Your task to perform on an android device: turn off location Image 0: 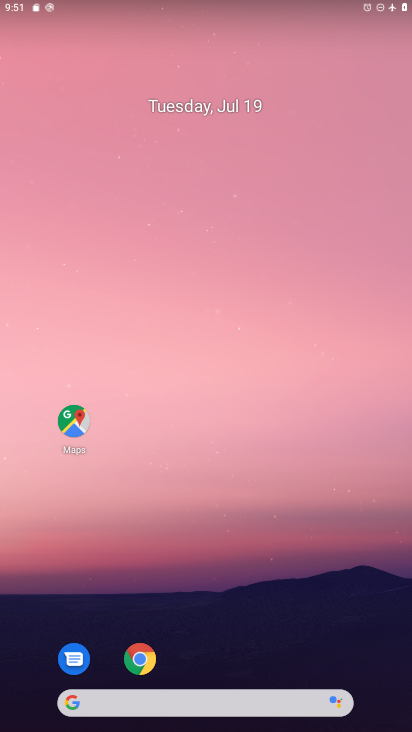
Step 0: drag from (164, 649) to (166, 306)
Your task to perform on an android device: turn off location Image 1: 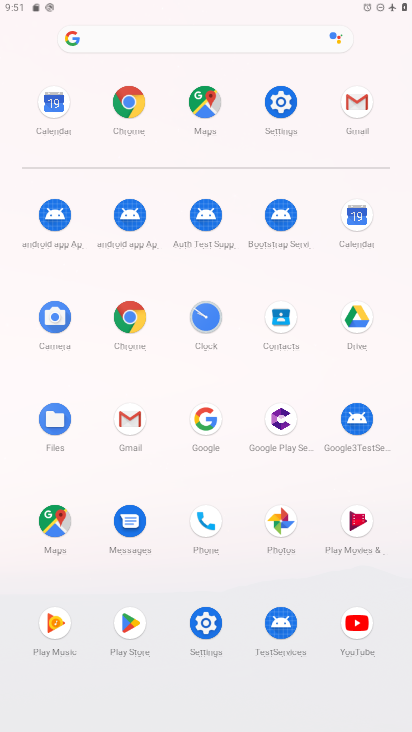
Step 1: click (270, 93)
Your task to perform on an android device: turn off location Image 2: 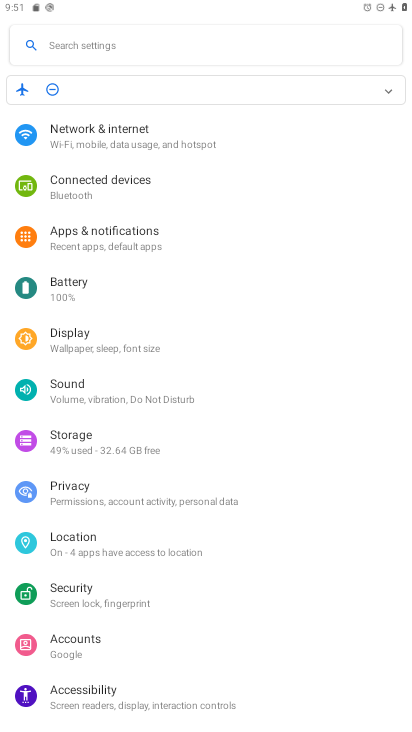
Step 2: click (112, 531)
Your task to perform on an android device: turn off location Image 3: 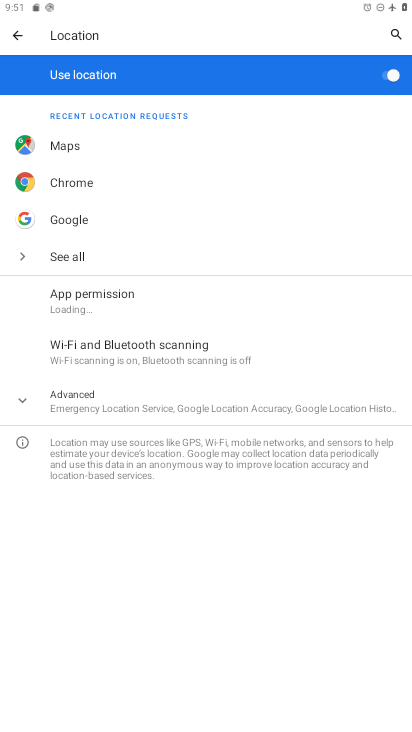
Step 3: click (382, 66)
Your task to perform on an android device: turn off location Image 4: 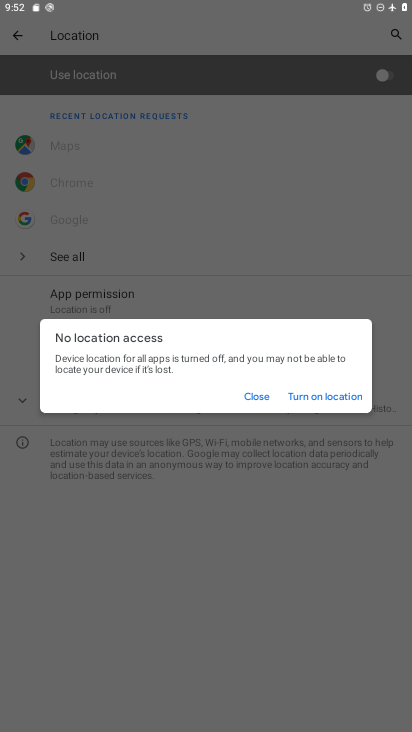
Step 4: click (265, 398)
Your task to perform on an android device: turn off location Image 5: 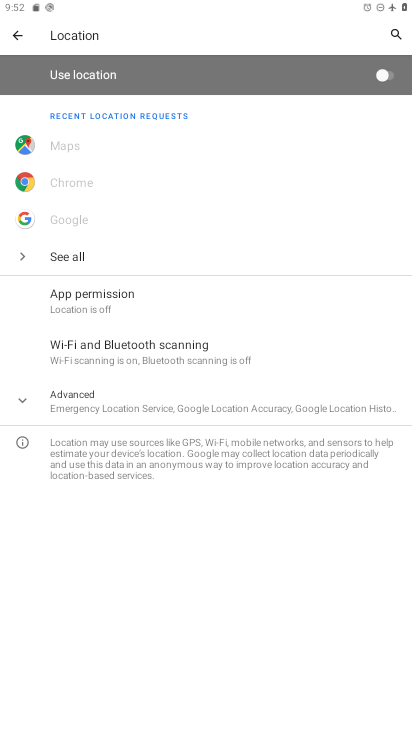
Step 5: task complete